Your task to perform on an android device: find snoozed emails in the gmail app Image 0: 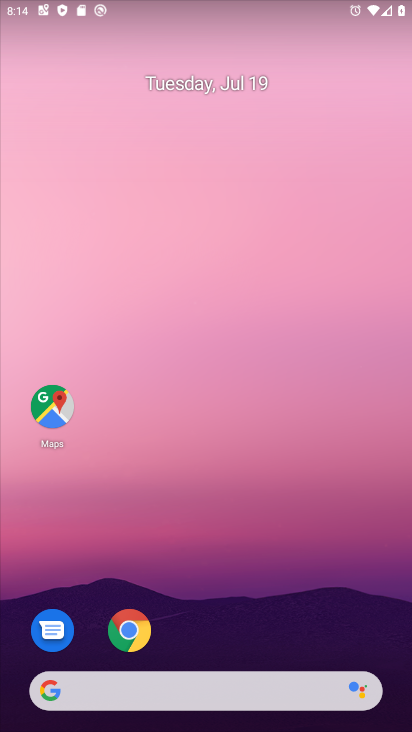
Step 0: drag from (309, 618) to (197, 23)
Your task to perform on an android device: find snoozed emails in the gmail app Image 1: 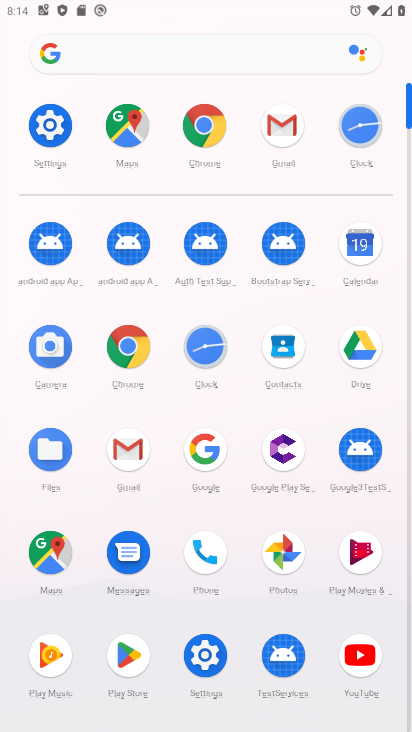
Step 1: click (278, 128)
Your task to perform on an android device: find snoozed emails in the gmail app Image 2: 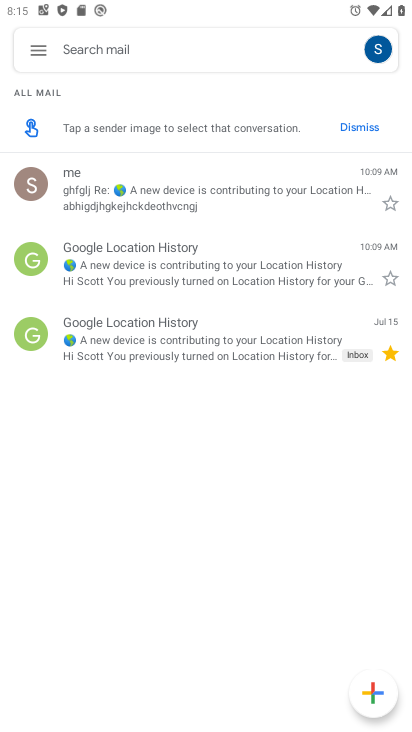
Step 2: click (34, 43)
Your task to perform on an android device: find snoozed emails in the gmail app Image 3: 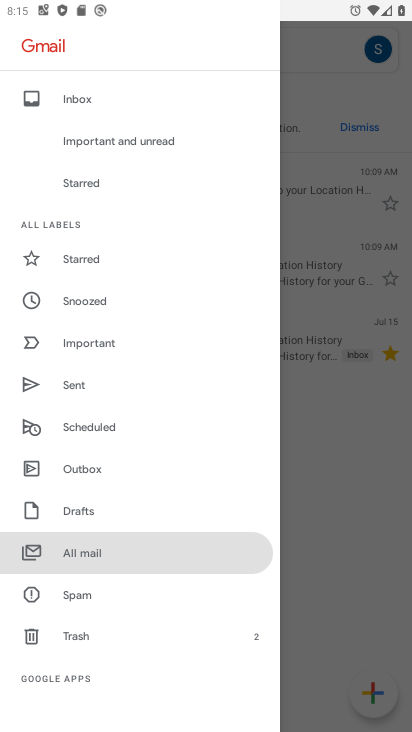
Step 3: click (92, 302)
Your task to perform on an android device: find snoozed emails in the gmail app Image 4: 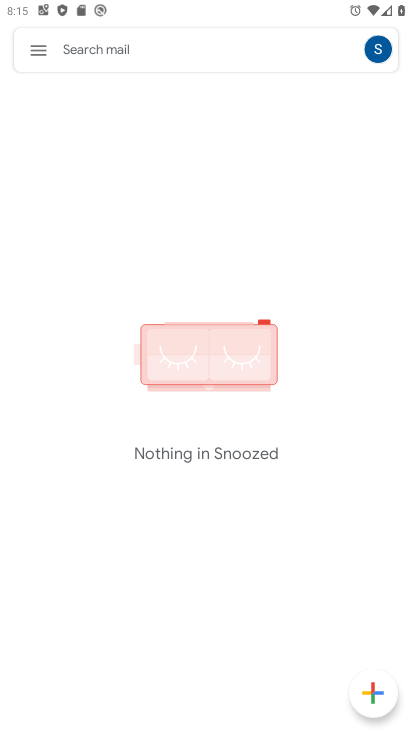
Step 4: task complete